Your task to perform on an android device: turn on notifications settings in the gmail app Image 0: 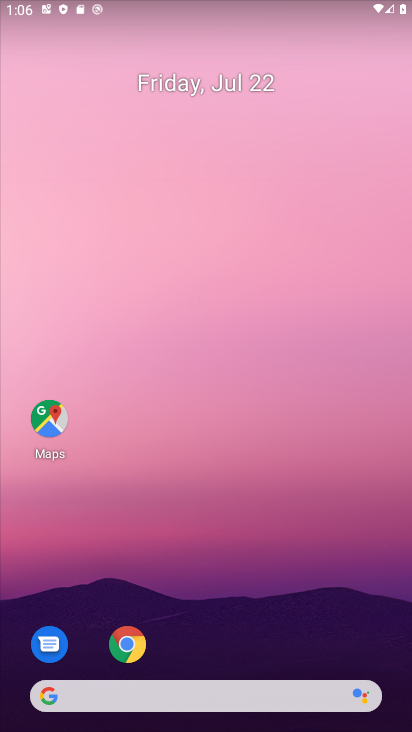
Step 0: press home button
Your task to perform on an android device: turn on notifications settings in the gmail app Image 1: 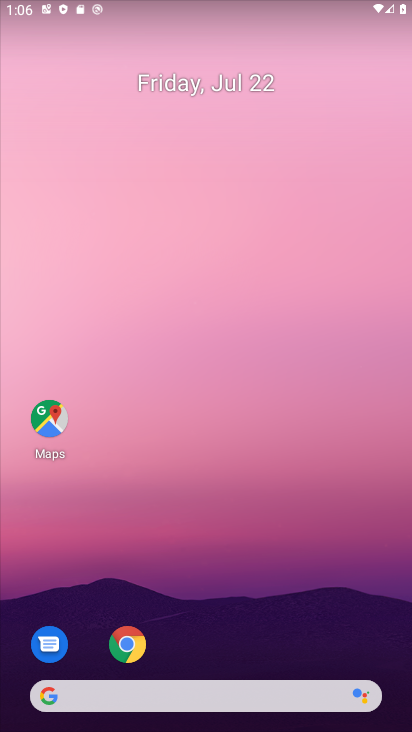
Step 1: press home button
Your task to perform on an android device: turn on notifications settings in the gmail app Image 2: 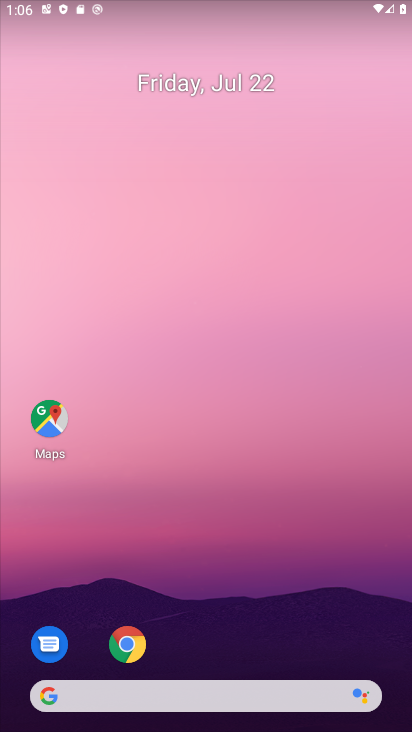
Step 2: drag from (218, 647) to (250, 67)
Your task to perform on an android device: turn on notifications settings in the gmail app Image 3: 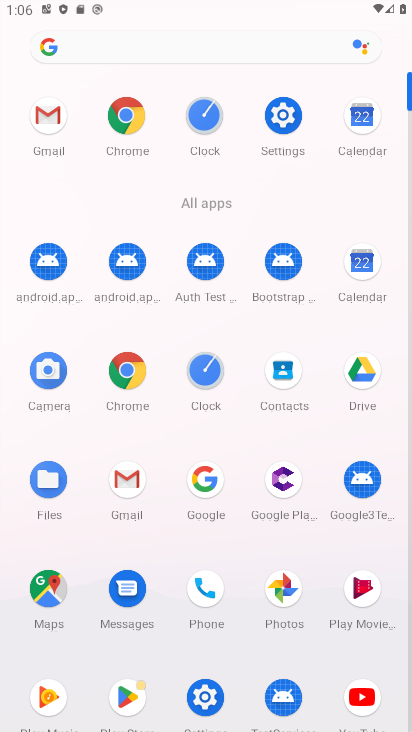
Step 3: click (47, 111)
Your task to perform on an android device: turn on notifications settings in the gmail app Image 4: 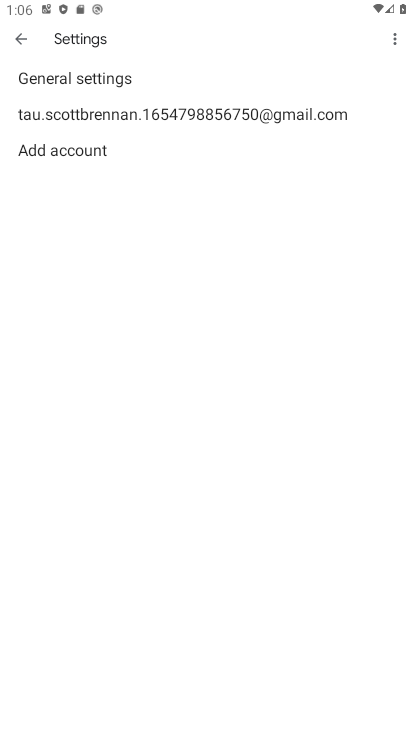
Step 4: click (49, 82)
Your task to perform on an android device: turn on notifications settings in the gmail app Image 5: 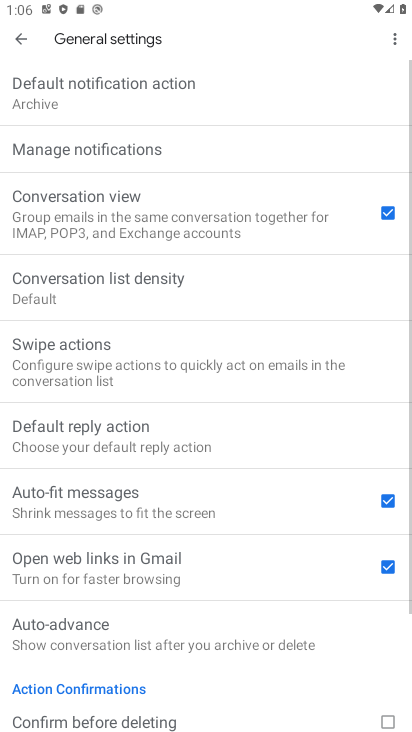
Step 5: click (123, 153)
Your task to perform on an android device: turn on notifications settings in the gmail app Image 6: 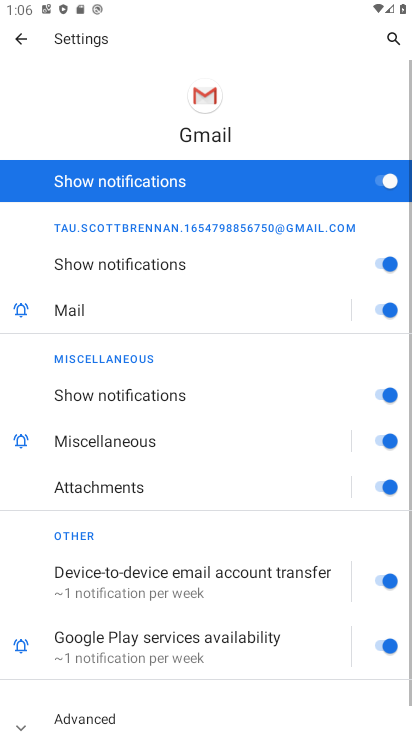
Step 6: click (385, 179)
Your task to perform on an android device: turn on notifications settings in the gmail app Image 7: 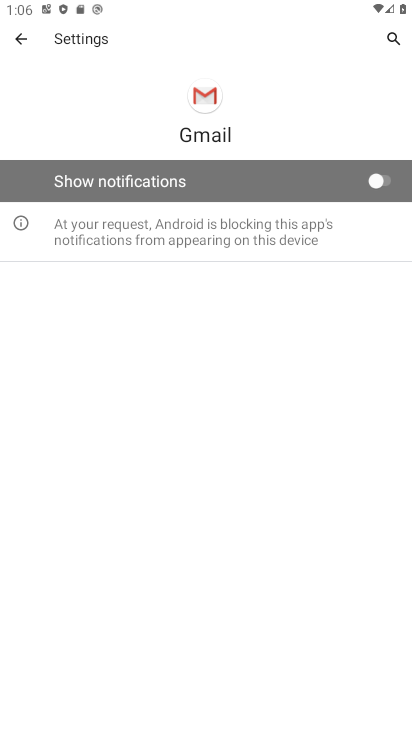
Step 7: click (381, 180)
Your task to perform on an android device: turn on notifications settings in the gmail app Image 8: 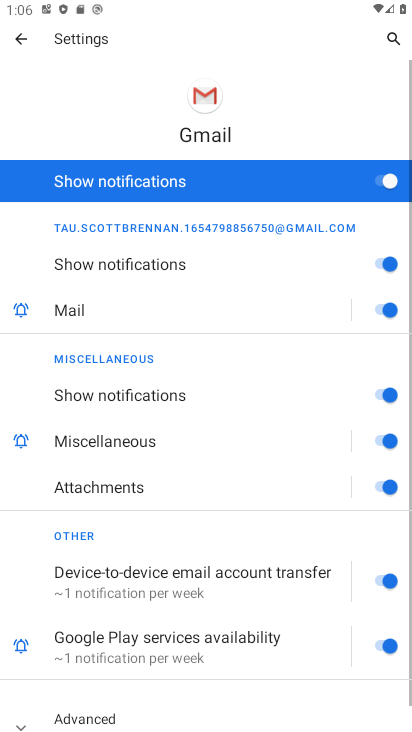
Step 8: task complete